Your task to perform on an android device: refresh tabs in the chrome app Image 0: 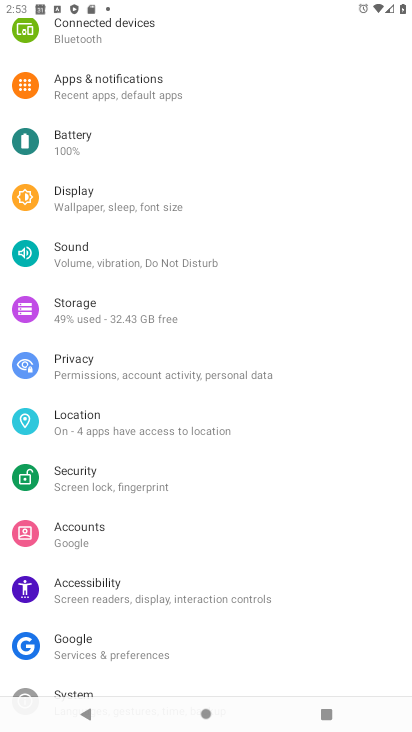
Step 0: press home button
Your task to perform on an android device: refresh tabs in the chrome app Image 1: 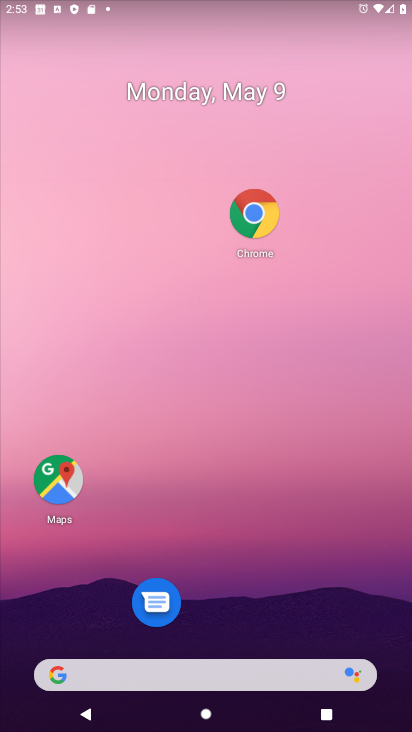
Step 1: click (232, 232)
Your task to perform on an android device: refresh tabs in the chrome app Image 2: 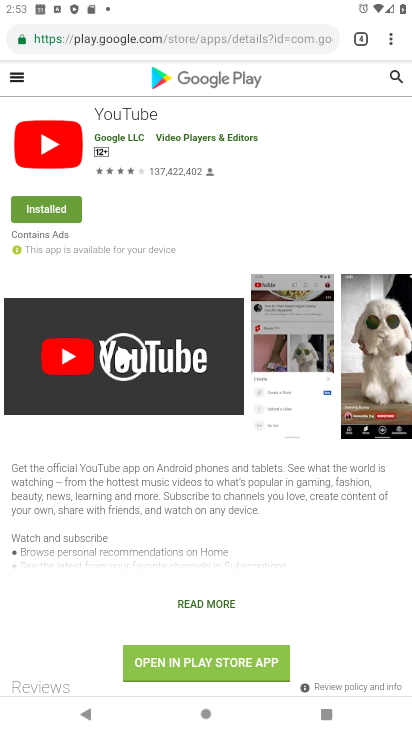
Step 2: click (360, 45)
Your task to perform on an android device: refresh tabs in the chrome app Image 3: 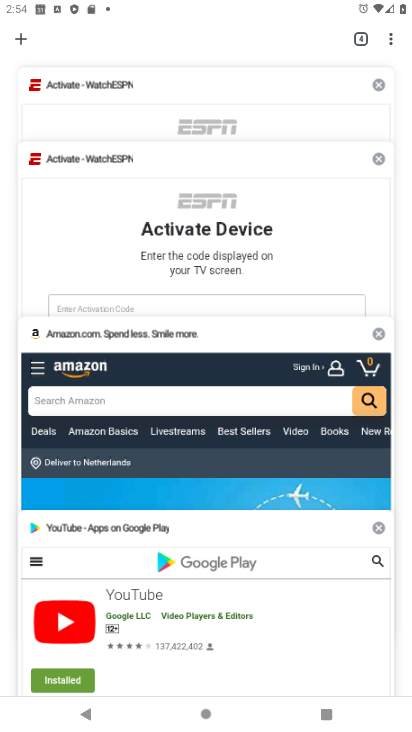
Step 3: click (274, 324)
Your task to perform on an android device: refresh tabs in the chrome app Image 4: 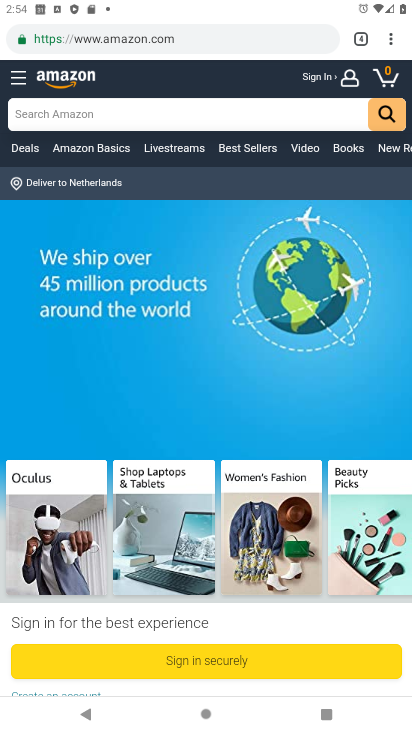
Step 4: click (389, 36)
Your task to perform on an android device: refresh tabs in the chrome app Image 5: 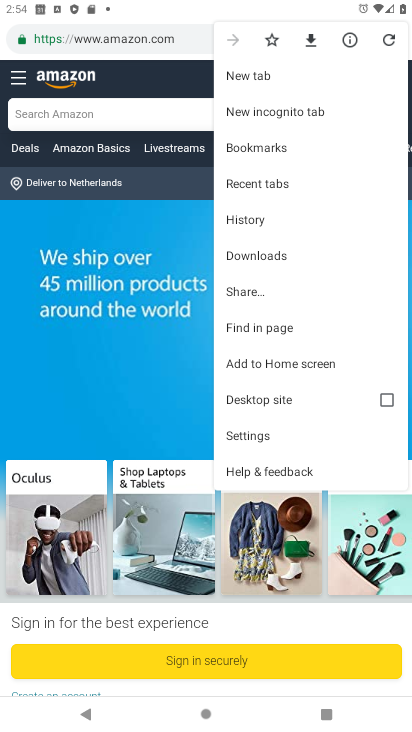
Step 5: click (391, 44)
Your task to perform on an android device: refresh tabs in the chrome app Image 6: 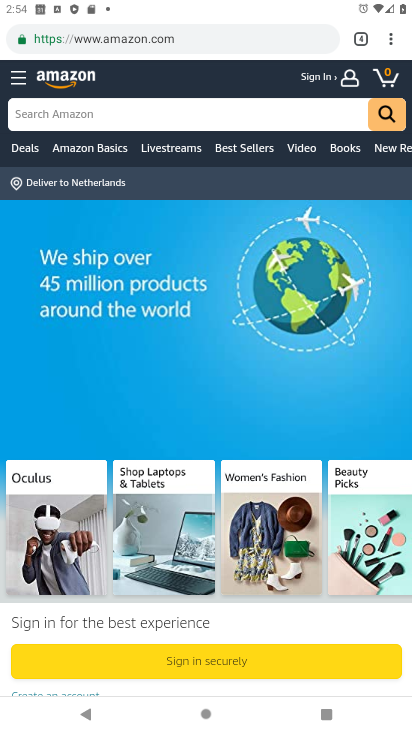
Step 6: task complete